Your task to perform on an android device: Go to Wikipedia Image 0: 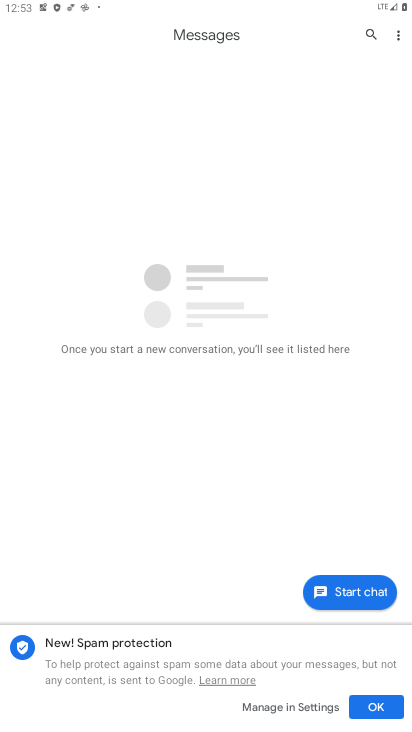
Step 0: press home button
Your task to perform on an android device: Go to Wikipedia Image 1: 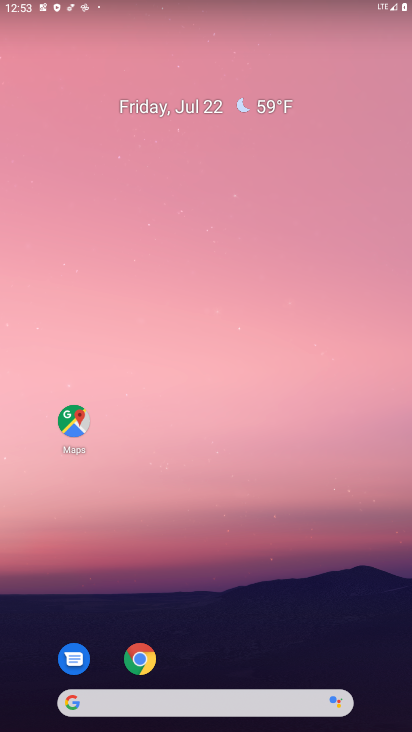
Step 1: drag from (280, 501) to (190, 95)
Your task to perform on an android device: Go to Wikipedia Image 2: 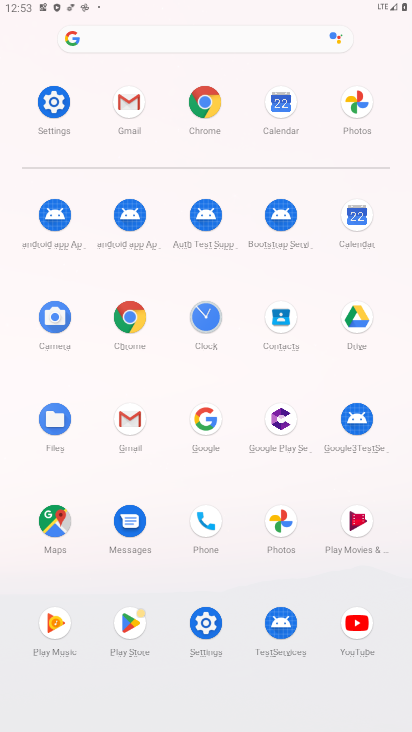
Step 2: click (127, 312)
Your task to perform on an android device: Go to Wikipedia Image 3: 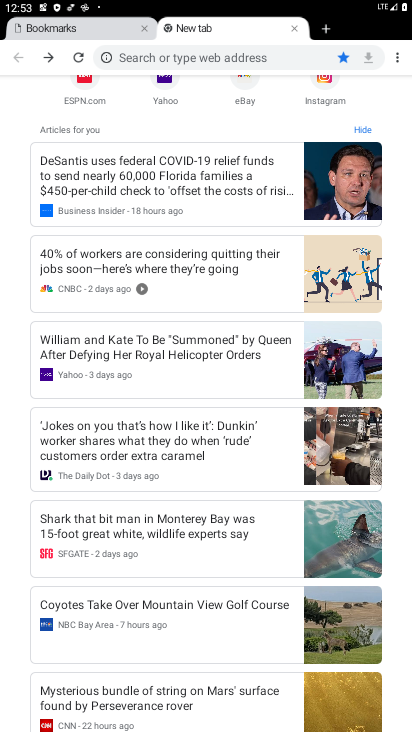
Step 3: drag from (126, 312) to (275, 654)
Your task to perform on an android device: Go to Wikipedia Image 4: 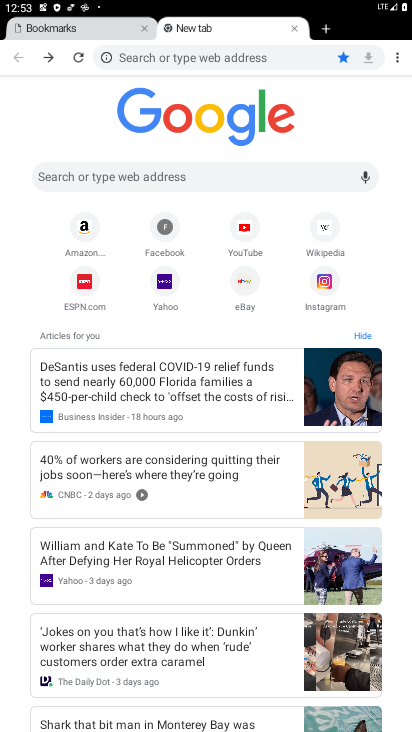
Step 4: click (323, 240)
Your task to perform on an android device: Go to Wikipedia Image 5: 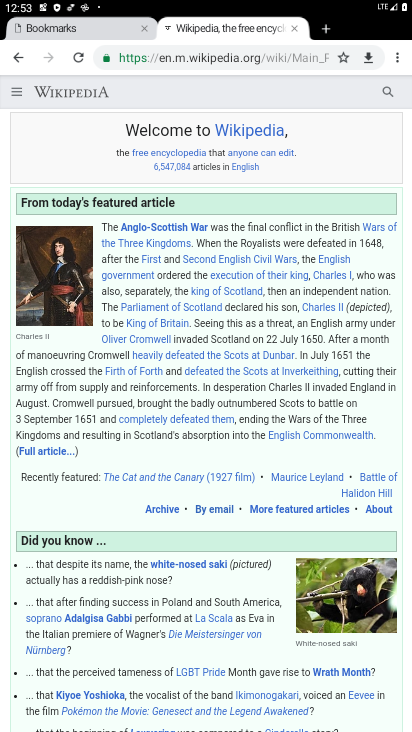
Step 5: task complete